Your task to perform on an android device: Open the map Image 0: 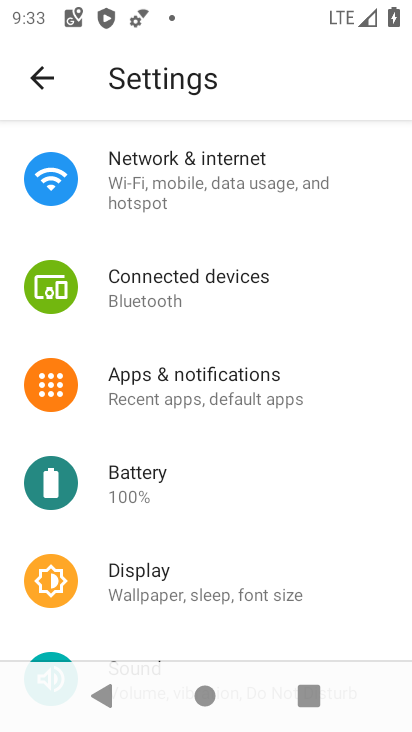
Step 0: press home button
Your task to perform on an android device: Open the map Image 1: 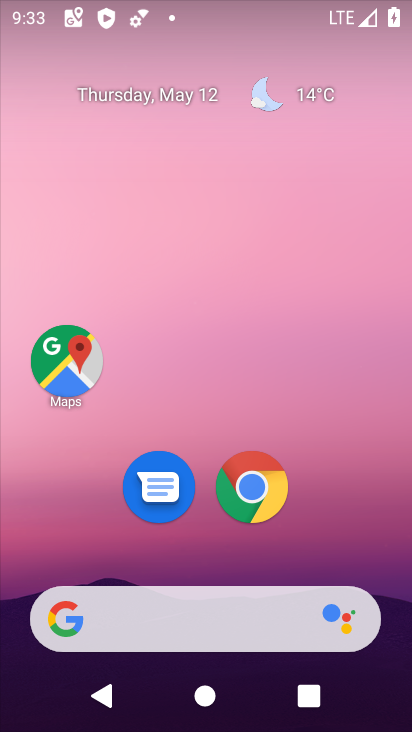
Step 1: click (61, 347)
Your task to perform on an android device: Open the map Image 2: 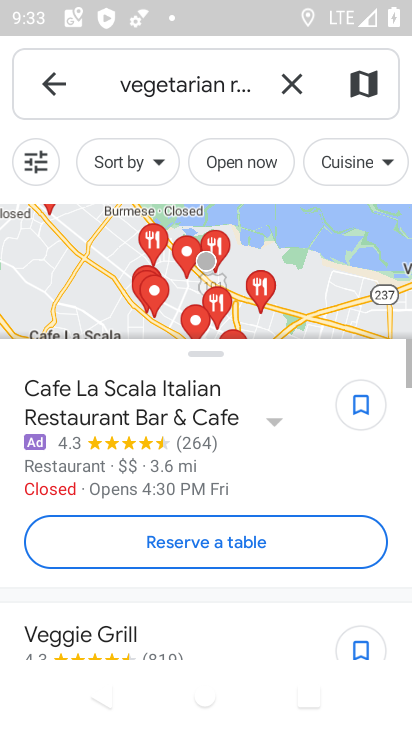
Step 2: click (291, 90)
Your task to perform on an android device: Open the map Image 3: 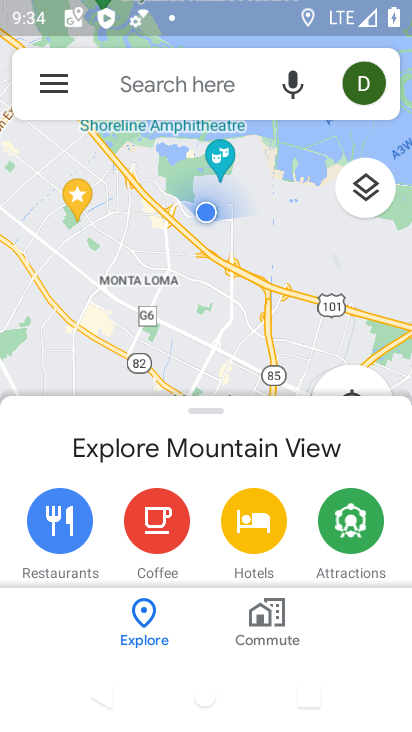
Step 3: task complete